Your task to perform on an android device: check the backup settings in the google photos Image 0: 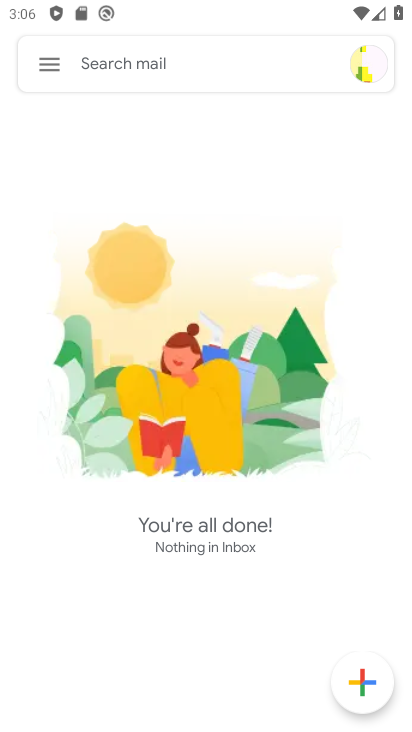
Step 0: press home button
Your task to perform on an android device: check the backup settings in the google photos Image 1: 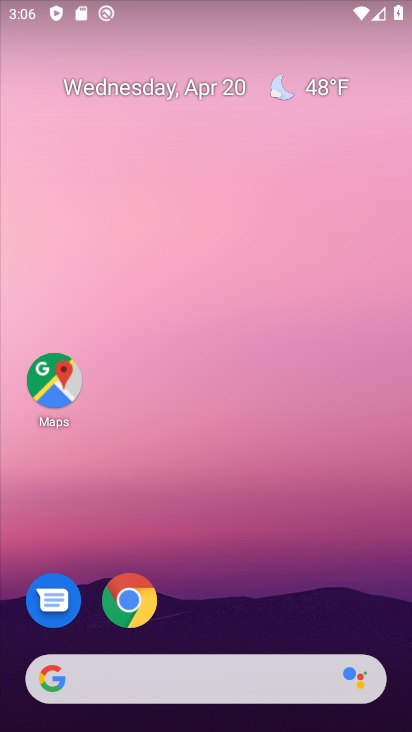
Step 1: drag from (288, 473) to (288, 54)
Your task to perform on an android device: check the backup settings in the google photos Image 2: 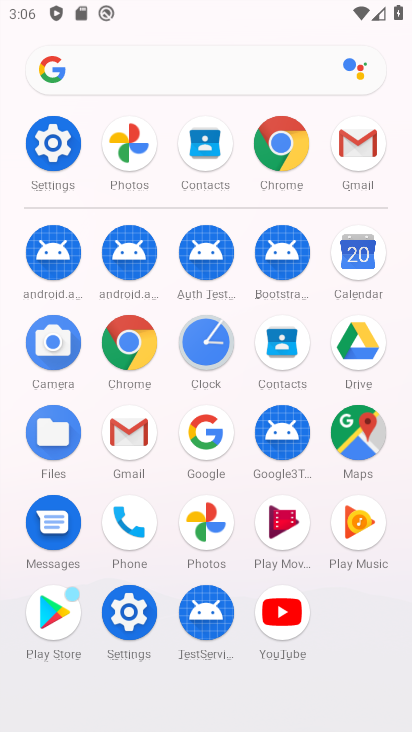
Step 2: click (152, 154)
Your task to perform on an android device: check the backup settings in the google photos Image 3: 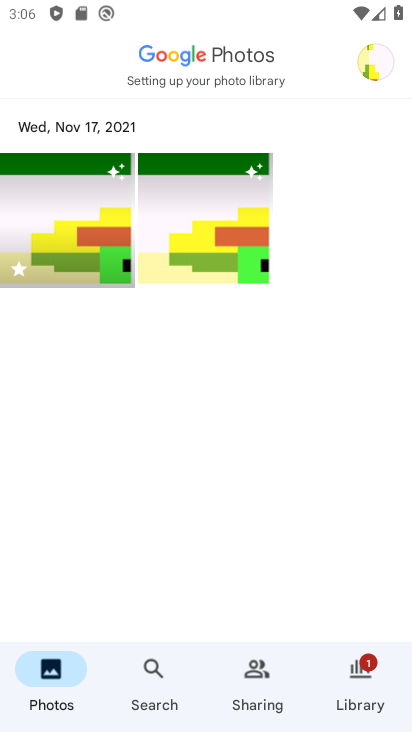
Step 3: drag from (319, 211) to (287, 459)
Your task to perform on an android device: check the backup settings in the google photos Image 4: 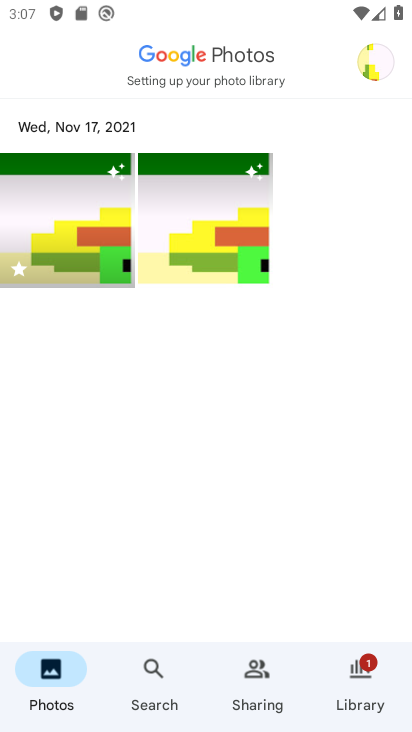
Step 4: click (375, 73)
Your task to perform on an android device: check the backup settings in the google photos Image 5: 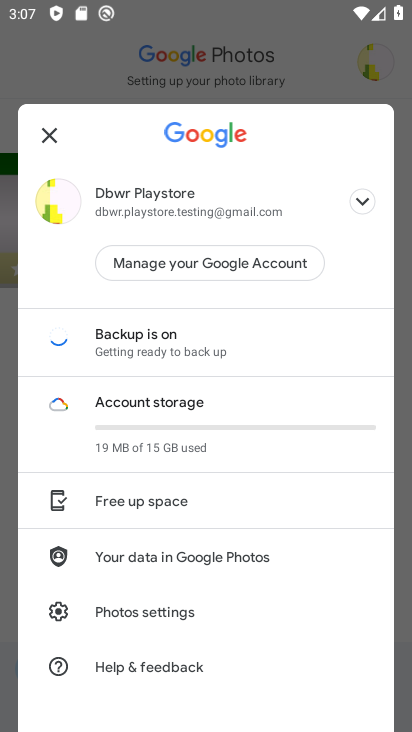
Step 5: click (151, 337)
Your task to perform on an android device: check the backup settings in the google photos Image 6: 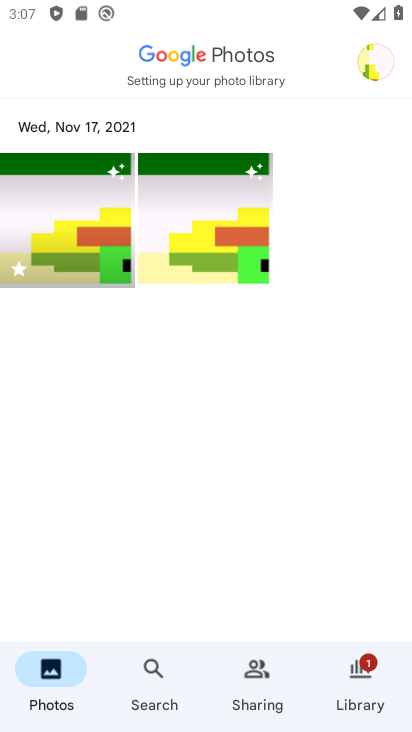
Step 6: task complete